Your task to perform on an android device: Open the stopwatch Image 0: 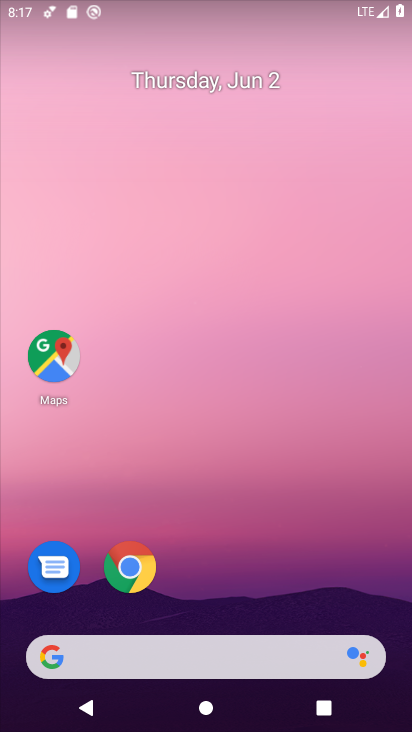
Step 0: drag from (130, 625) to (248, 105)
Your task to perform on an android device: Open the stopwatch Image 1: 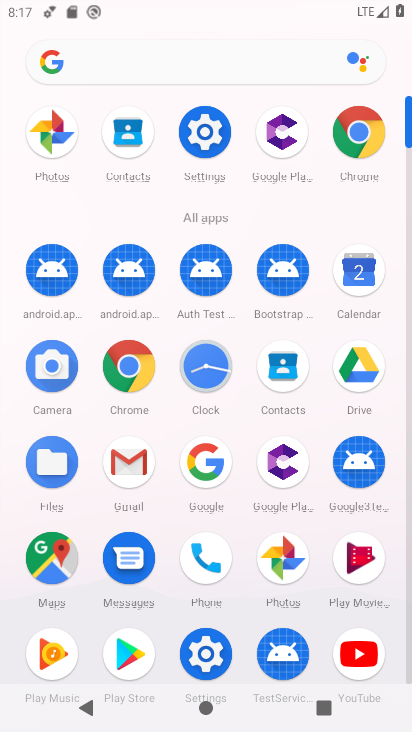
Step 1: click (192, 369)
Your task to perform on an android device: Open the stopwatch Image 2: 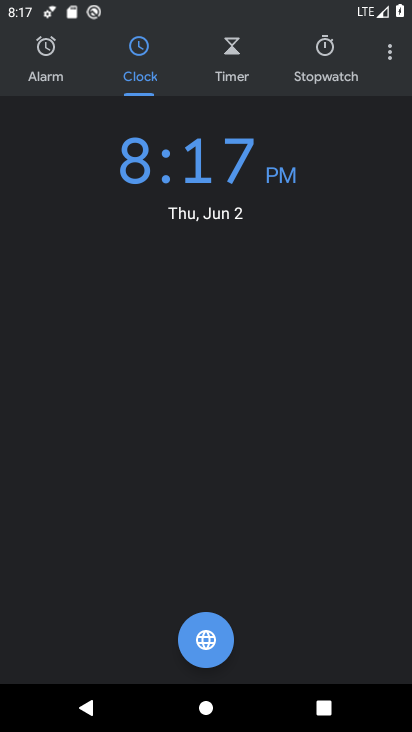
Step 2: click (332, 55)
Your task to perform on an android device: Open the stopwatch Image 3: 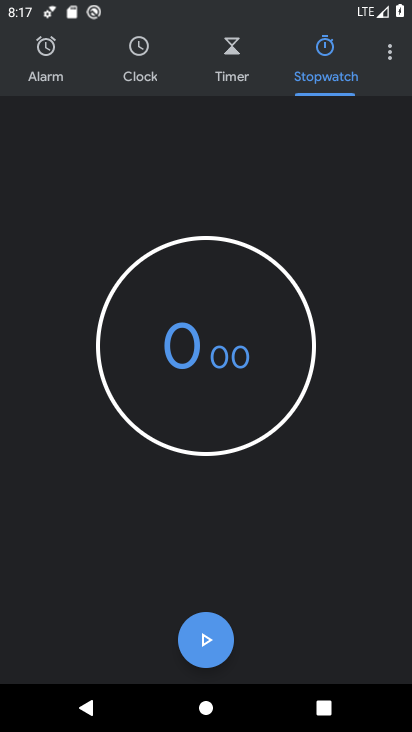
Step 3: task complete